Your task to perform on an android device: See recent photos Image 0: 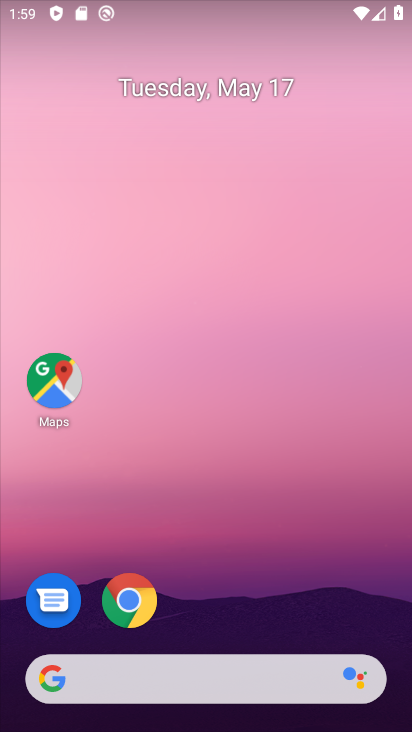
Step 0: click (295, 271)
Your task to perform on an android device: See recent photos Image 1: 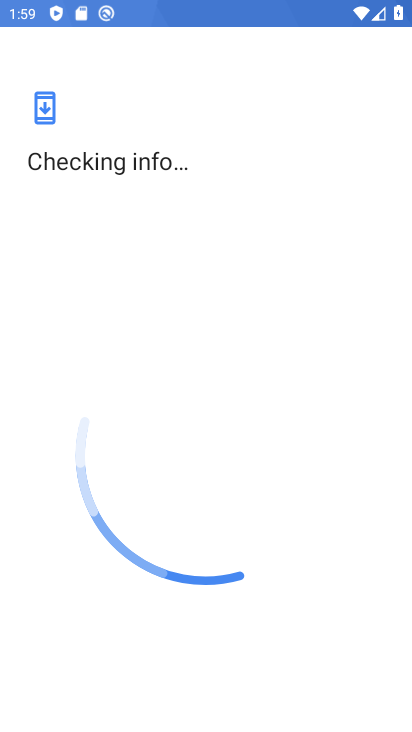
Step 1: press back button
Your task to perform on an android device: See recent photos Image 2: 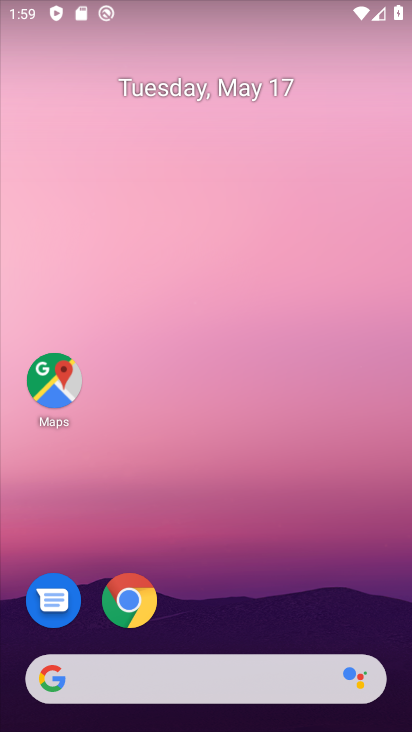
Step 2: drag from (211, 667) to (198, 78)
Your task to perform on an android device: See recent photos Image 3: 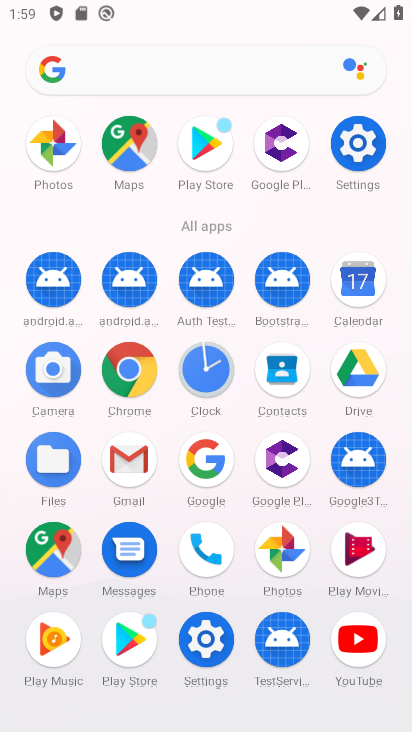
Step 3: click (271, 536)
Your task to perform on an android device: See recent photos Image 4: 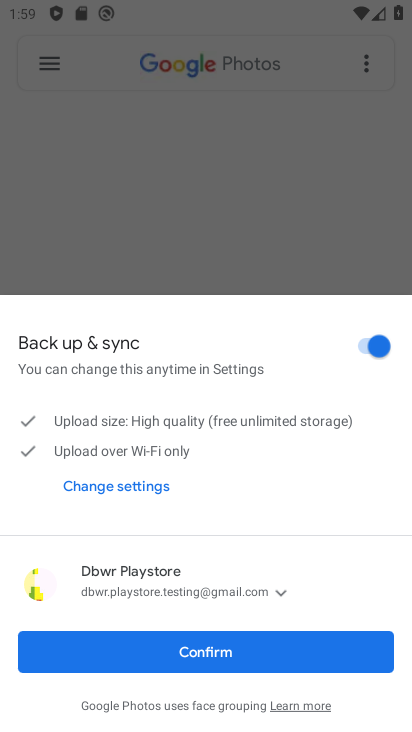
Step 4: click (228, 639)
Your task to perform on an android device: See recent photos Image 5: 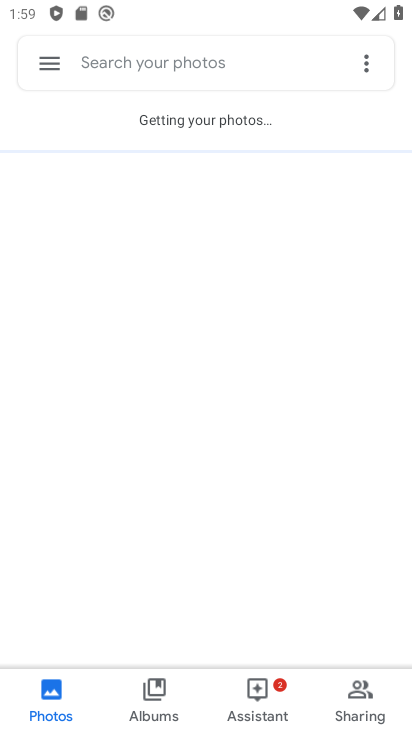
Step 5: task complete